Your task to perform on an android device: Go to accessibility settings Image 0: 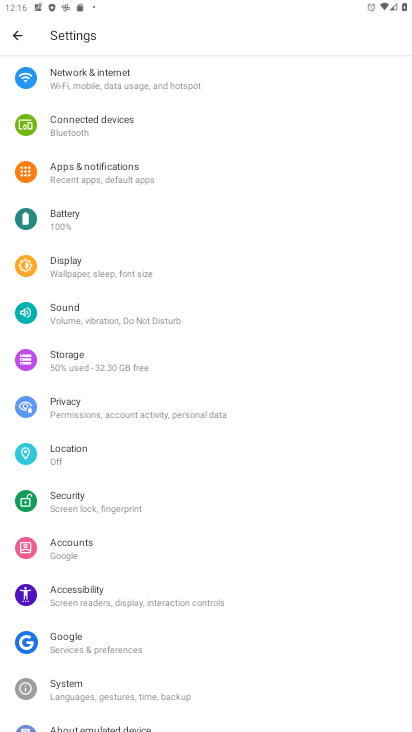
Step 0: click (63, 589)
Your task to perform on an android device: Go to accessibility settings Image 1: 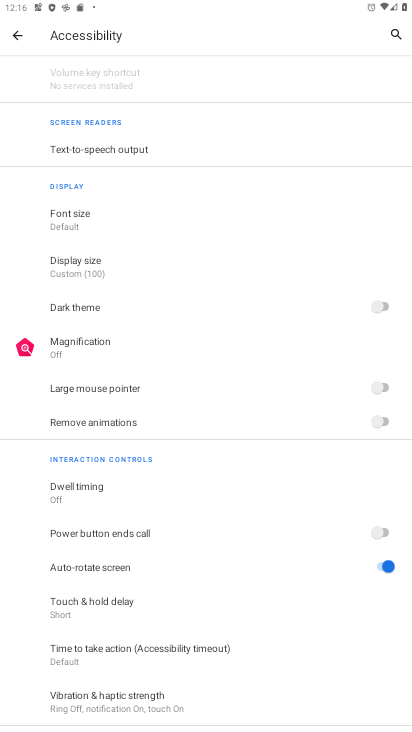
Step 1: task complete